Your task to perform on an android device: Open Wikipedia Image 0: 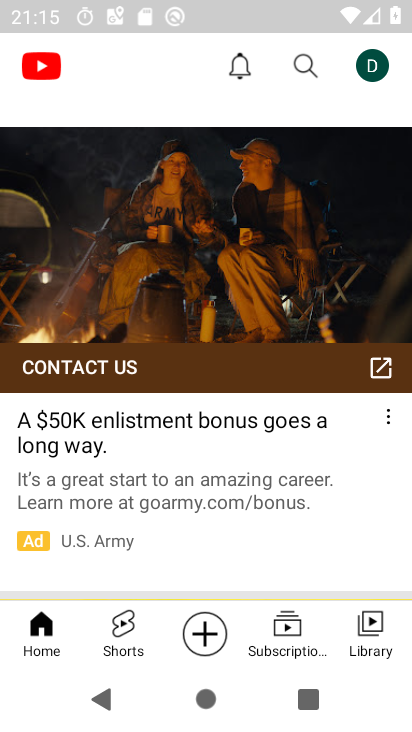
Step 0: press home button
Your task to perform on an android device: Open Wikipedia Image 1: 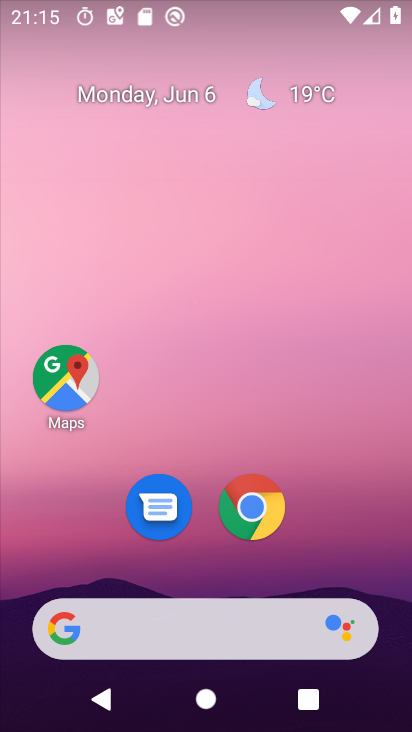
Step 1: click (255, 516)
Your task to perform on an android device: Open Wikipedia Image 2: 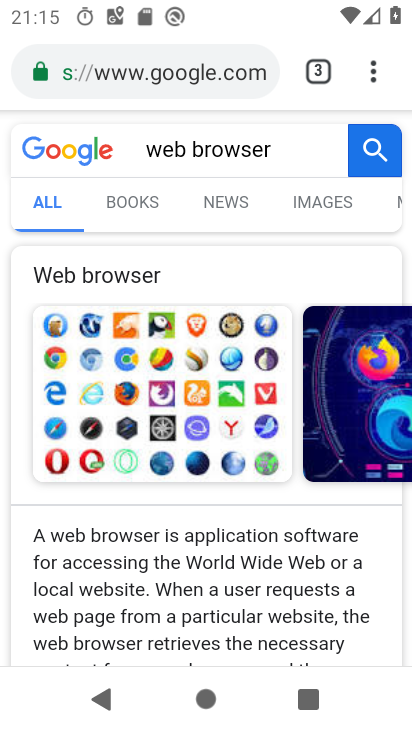
Step 2: click (176, 86)
Your task to perform on an android device: Open Wikipedia Image 3: 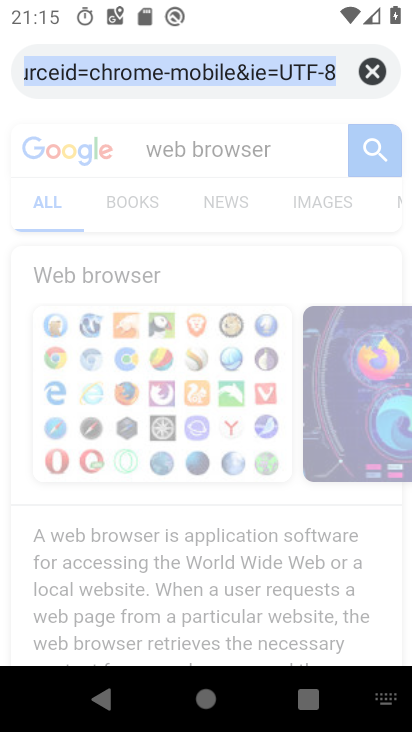
Step 3: type " Wikipedia"
Your task to perform on an android device: Open Wikipedia Image 4: 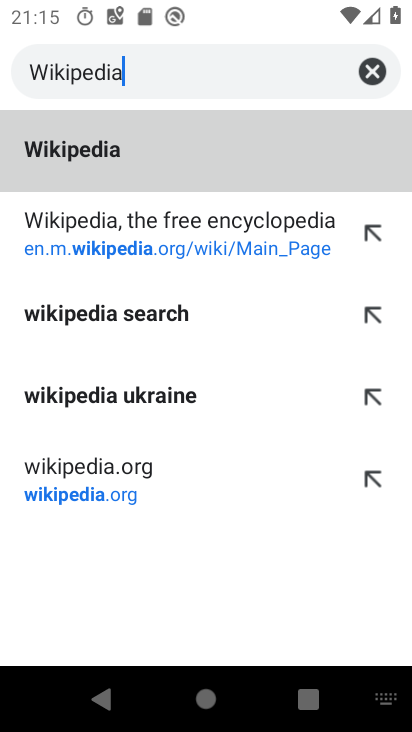
Step 4: type ""
Your task to perform on an android device: Open Wikipedia Image 5: 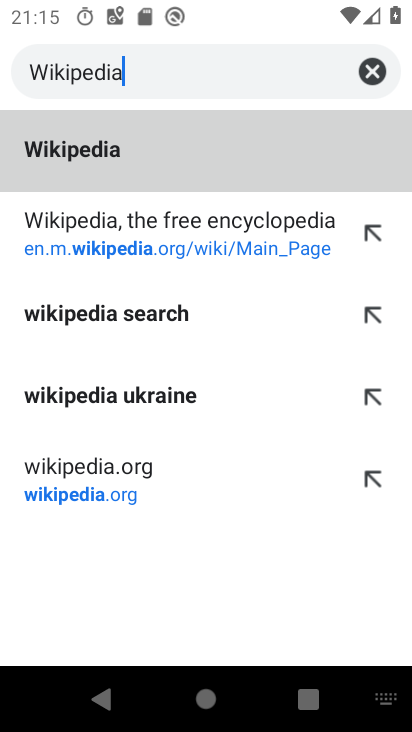
Step 5: click (151, 154)
Your task to perform on an android device: Open Wikipedia Image 6: 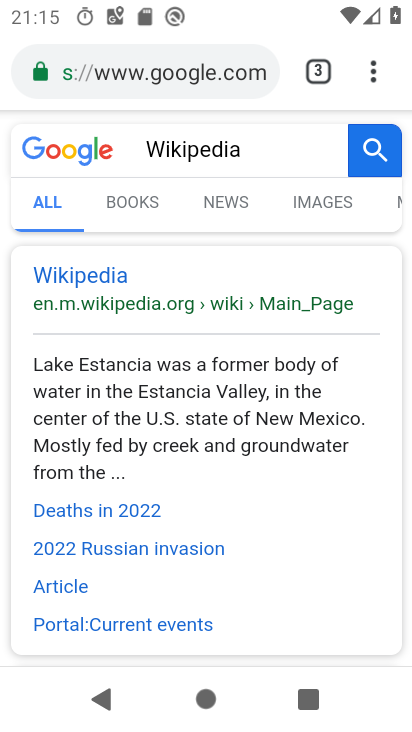
Step 6: click (115, 285)
Your task to perform on an android device: Open Wikipedia Image 7: 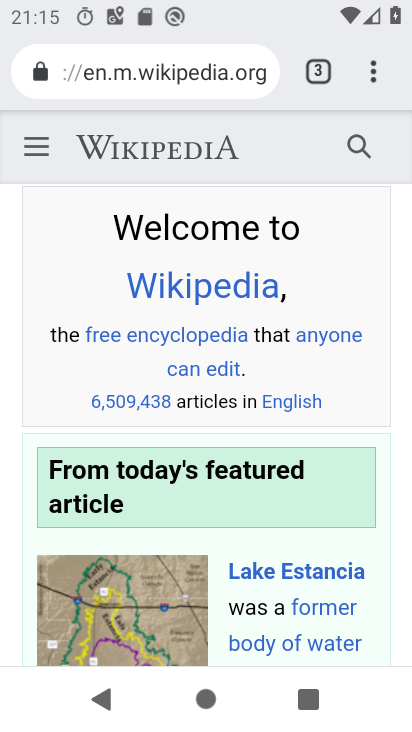
Step 7: task complete